Your task to perform on an android device: Do I have any events today? Image 0: 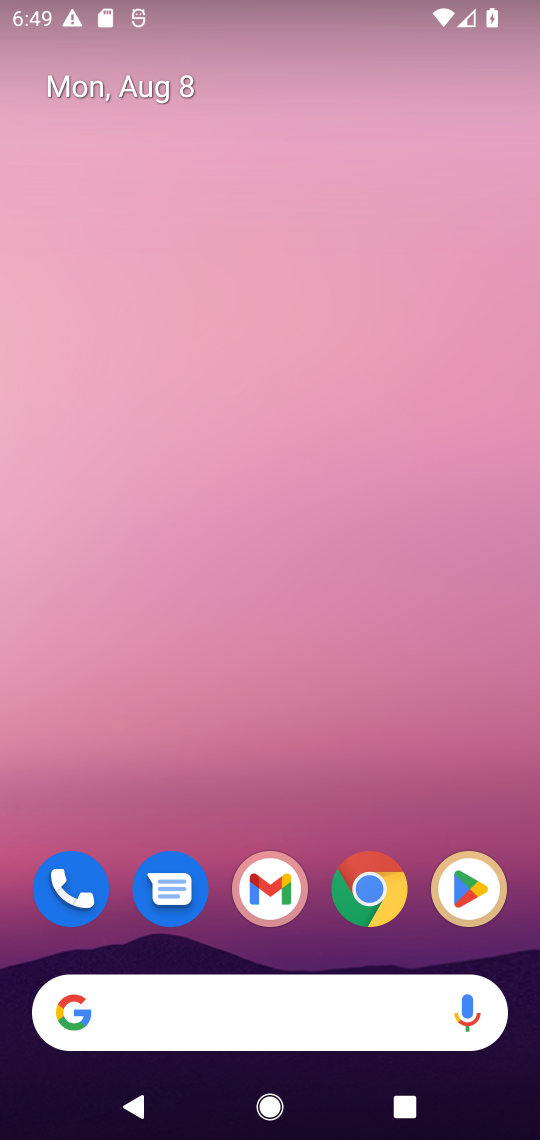
Step 0: drag from (529, 1061) to (382, 263)
Your task to perform on an android device: Do I have any events today? Image 1: 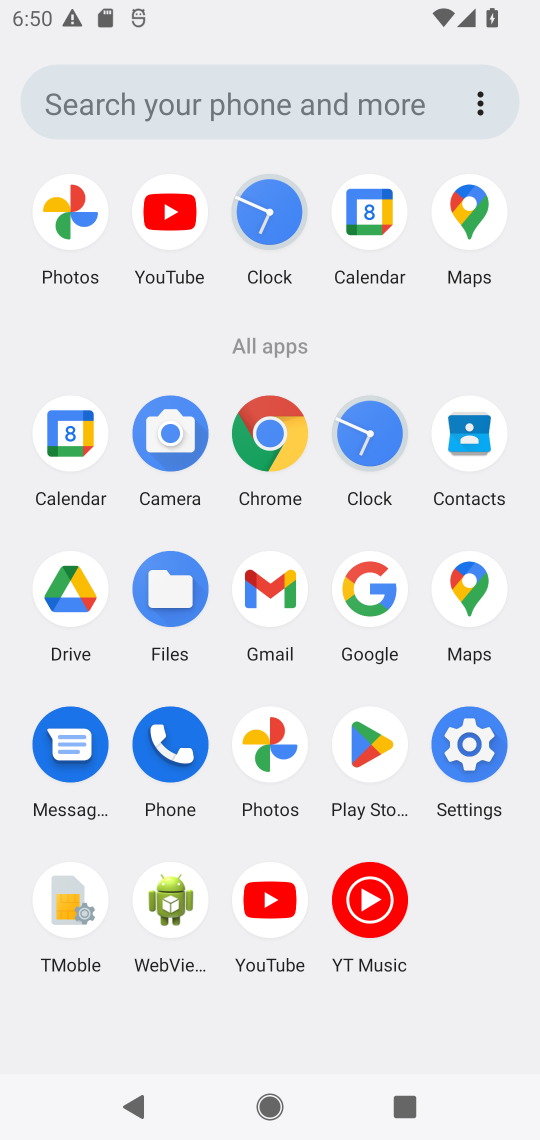
Step 1: click (76, 446)
Your task to perform on an android device: Do I have any events today? Image 2: 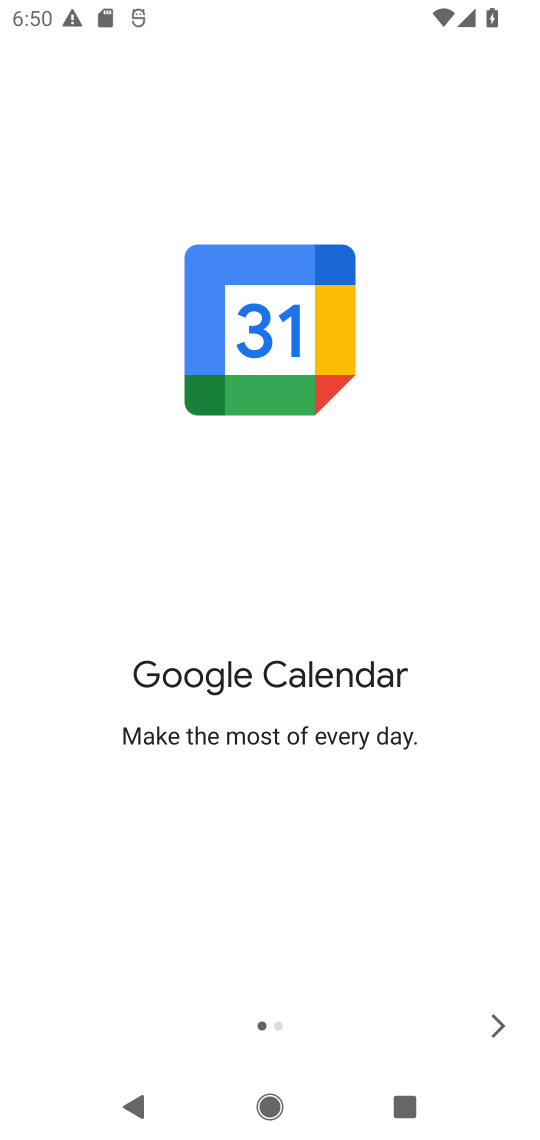
Step 2: click (512, 1014)
Your task to perform on an android device: Do I have any events today? Image 3: 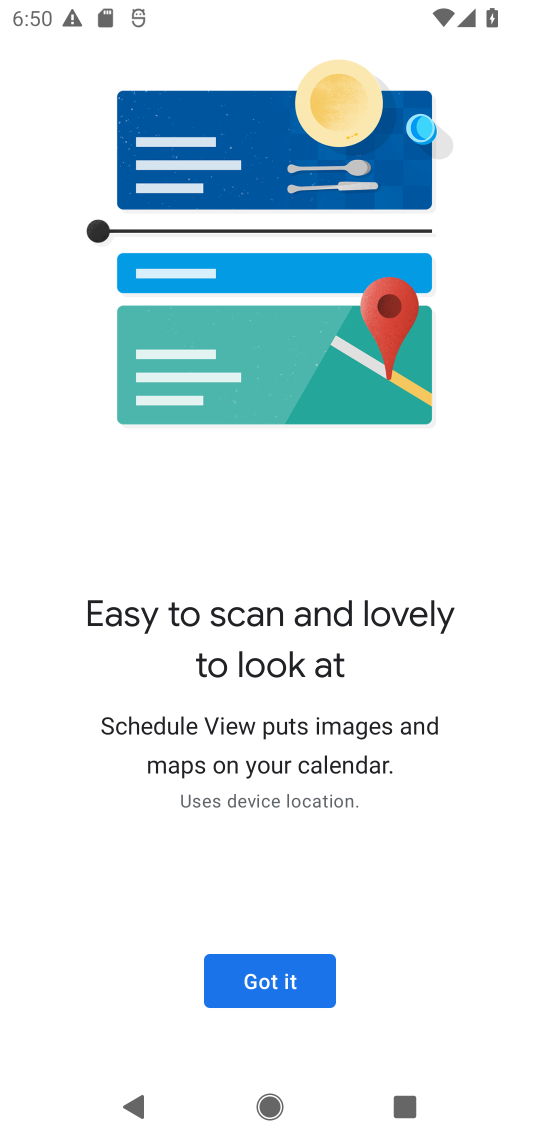
Step 3: click (497, 1019)
Your task to perform on an android device: Do I have any events today? Image 4: 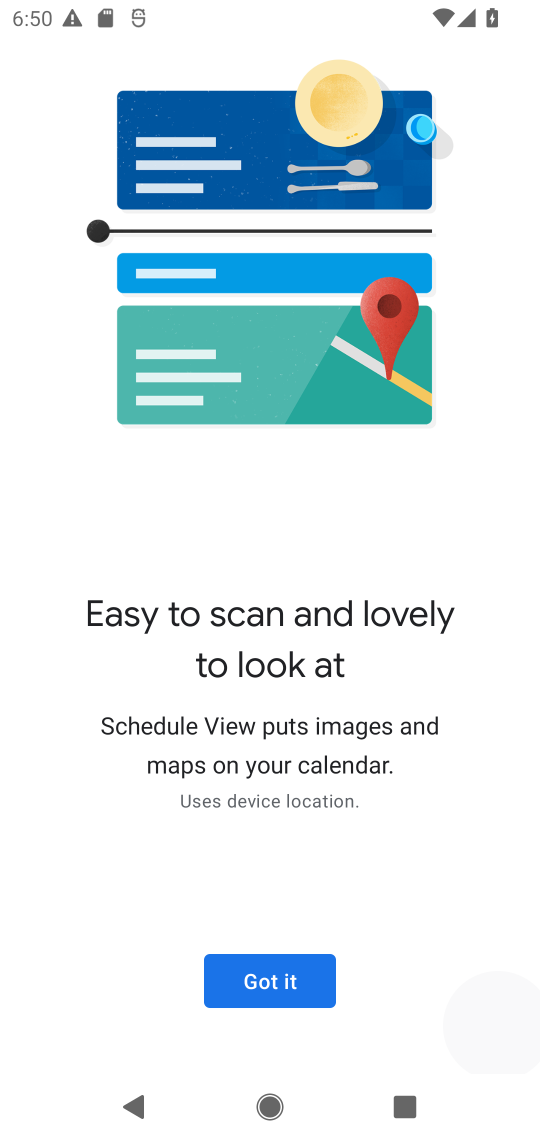
Step 4: click (242, 991)
Your task to perform on an android device: Do I have any events today? Image 5: 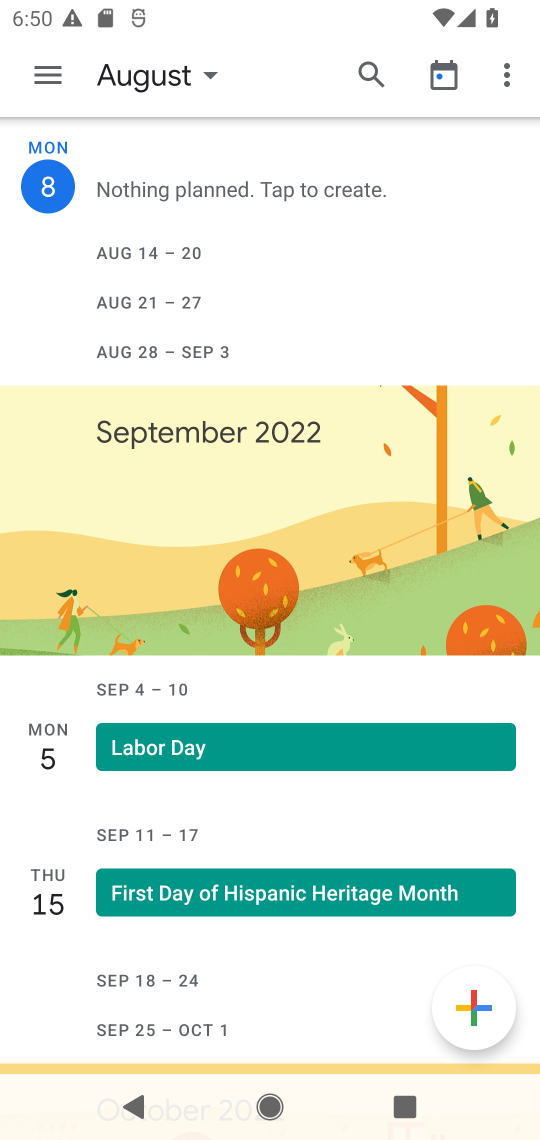
Step 5: task complete